Your task to perform on an android device: move an email to a new category in the gmail app Image 0: 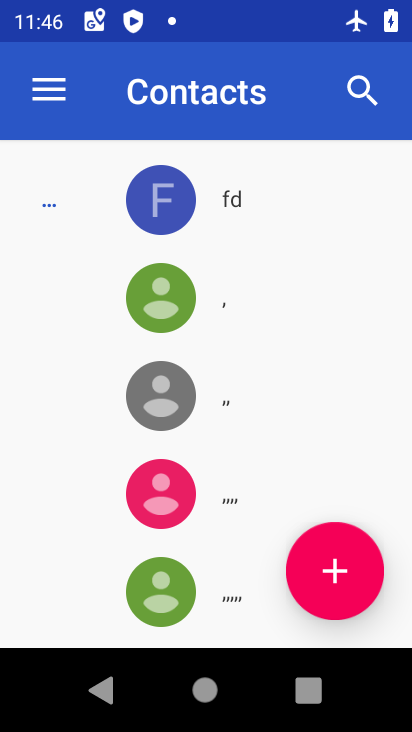
Step 0: drag from (233, 720) to (225, 252)
Your task to perform on an android device: move an email to a new category in the gmail app Image 1: 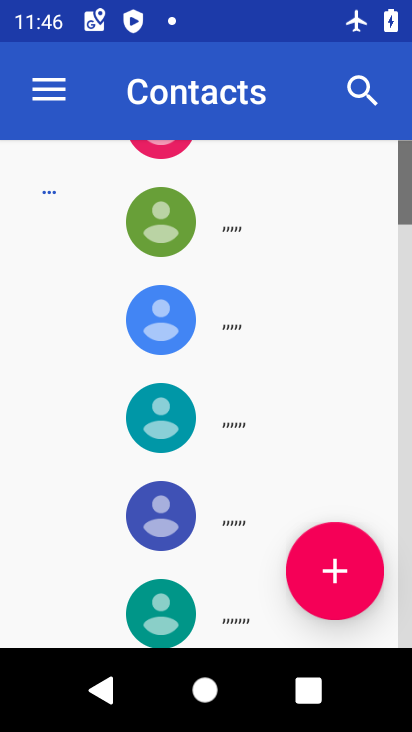
Step 1: press home button
Your task to perform on an android device: move an email to a new category in the gmail app Image 2: 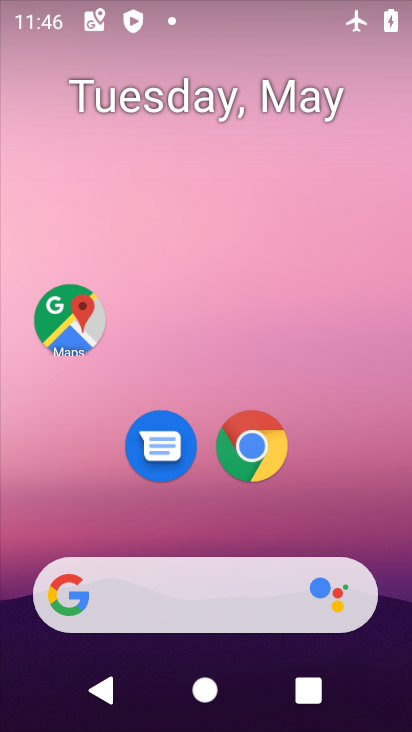
Step 2: drag from (243, 715) to (241, 229)
Your task to perform on an android device: move an email to a new category in the gmail app Image 3: 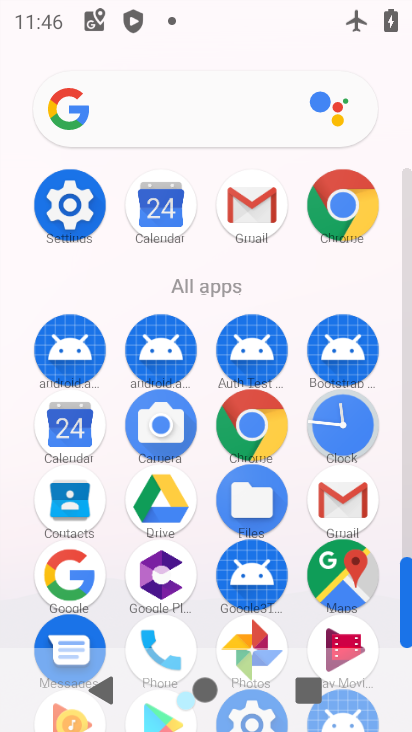
Step 3: click (334, 500)
Your task to perform on an android device: move an email to a new category in the gmail app Image 4: 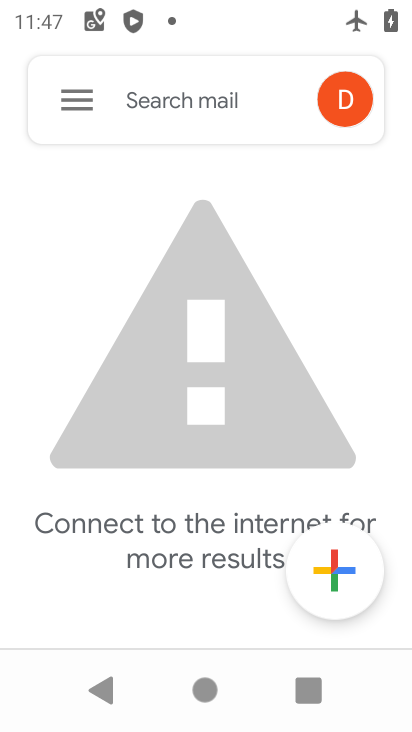
Step 4: task complete